Your task to perform on an android device: Open Youtube and go to "Your channel" Image 0: 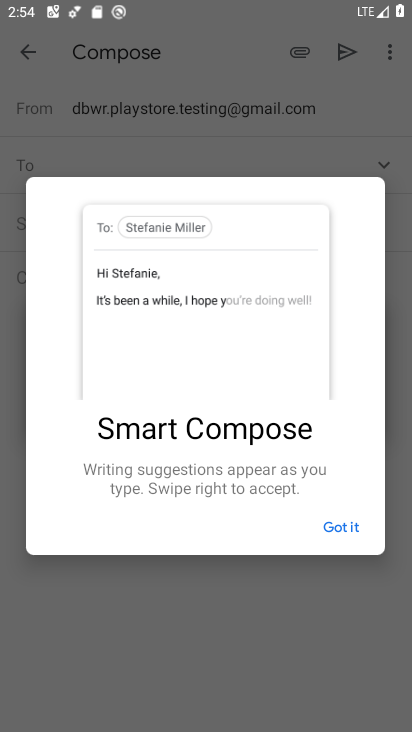
Step 0: press home button
Your task to perform on an android device: Open Youtube and go to "Your channel" Image 1: 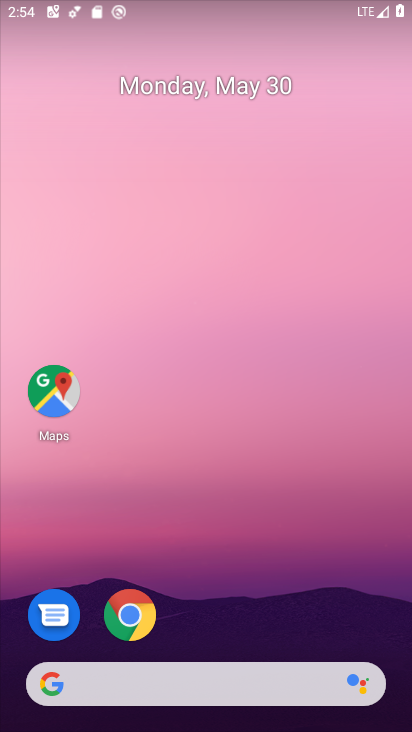
Step 1: drag from (318, 606) to (306, 42)
Your task to perform on an android device: Open Youtube and go to "Your channel" Image 2: 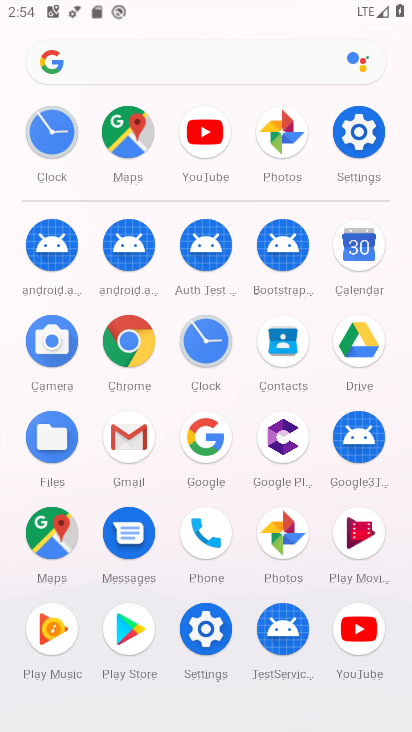
Step 2: click (348, 622)
Your task to perform on an android device: Open Youtube and go to "Your channel" Image 3: 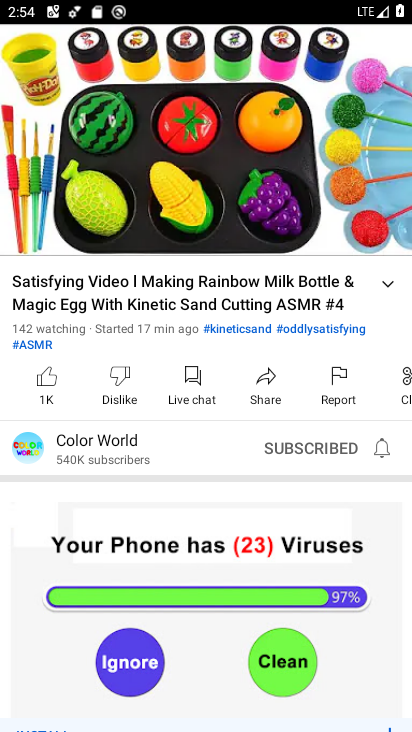
Step 3: press back button
Your task to perform on an android device: Open Youtube and go to "Your channel" Image 4: 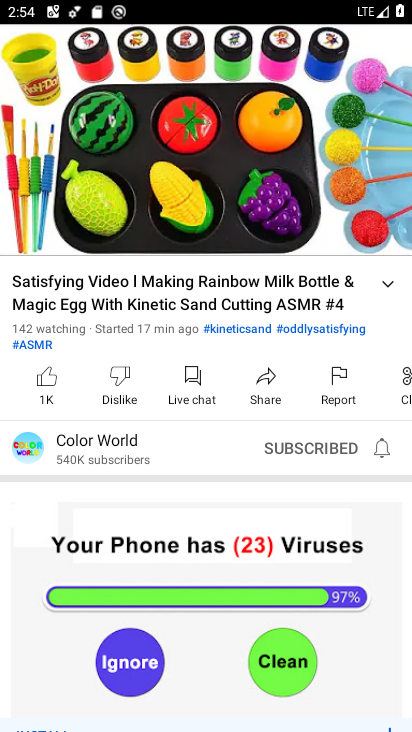
Step 4: press back button
Your task to perform on an android device: Open Youtube and go to "Your channel" Image 5: 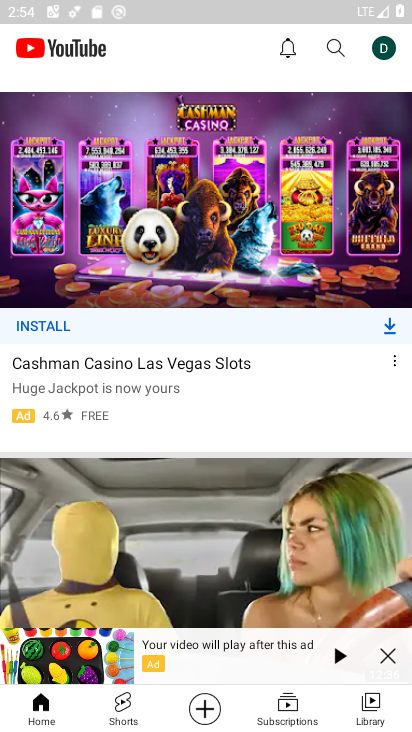
Step 5: click (375, 49)
Your task to perform on an android device: Open Youtube and go to "Your channel" Image 6: 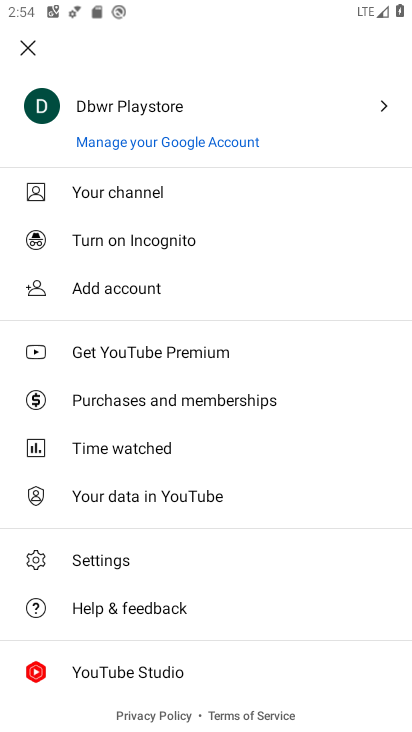
Step 6: click (255, 190)
Your task to perform on an android device: Open Youtube and go to "Your channel" Image 7: 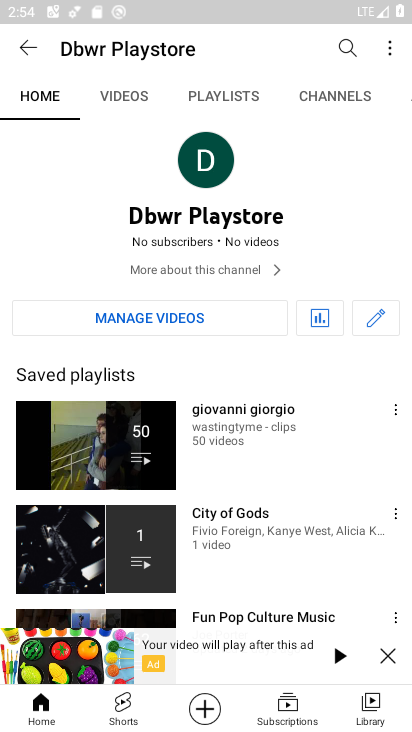
Step 7: task complete